Your task to perform on an android device: Check the news Image 0: 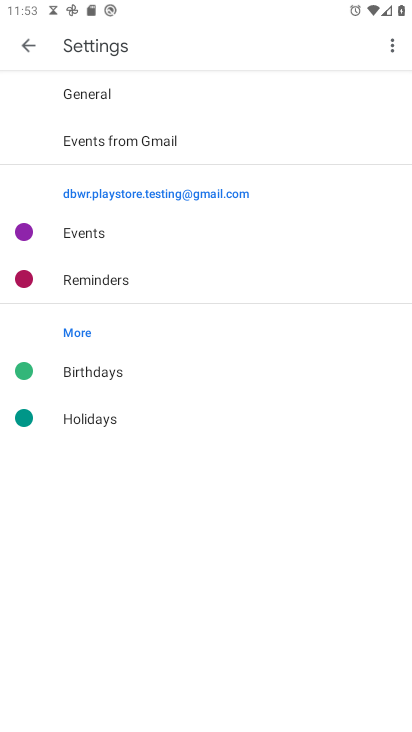
Step 0: press home button
Your task to perform on an android device: Check the news Image 1: 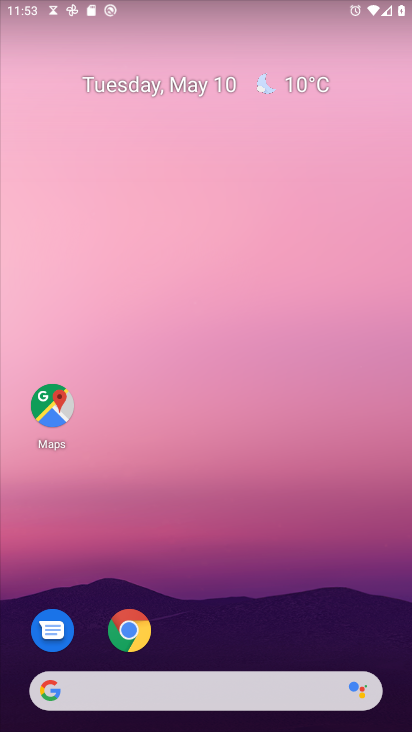
Step 1: click (125, 628)
Your task to perform on an android device: Check the news Image 2: 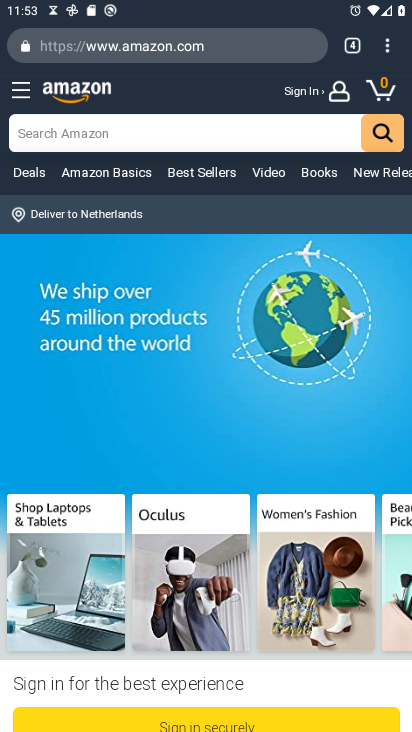
Step 2: click (356, 44)
Your task to perform on an android device: Check the news Image 3: 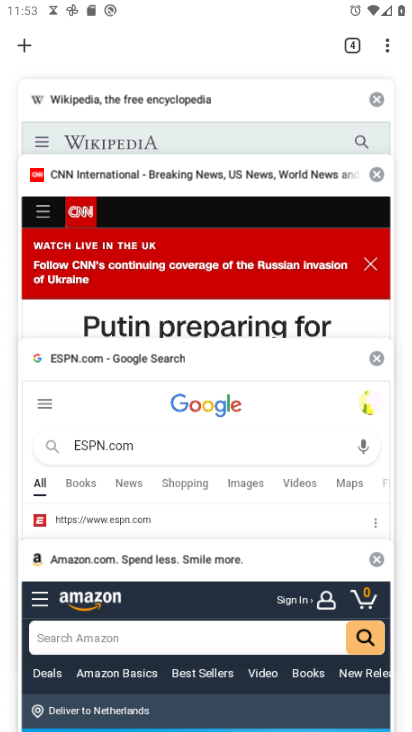
Step 3: click (25, 44)
Your task to perform on an android device: Check the news Image 4: 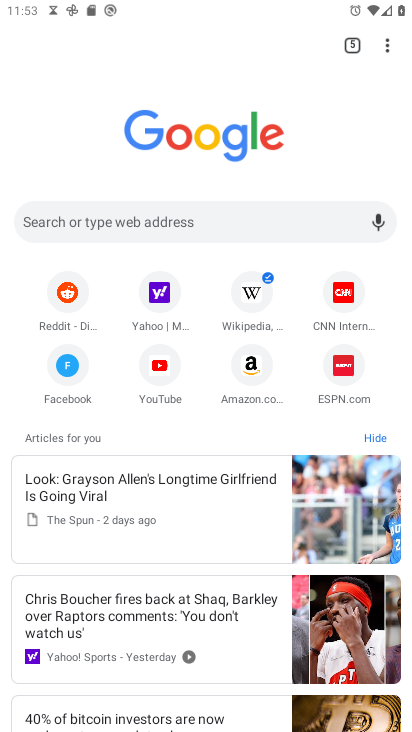
Step 4: click (189, 224)
Your task to perform on an android device: Check the news Image 5: 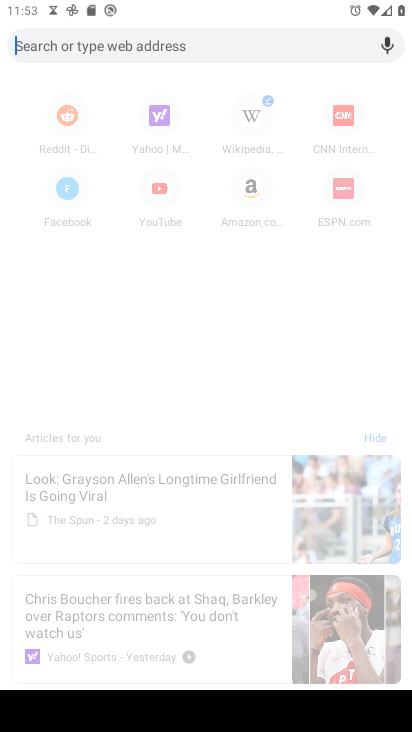
Step 5: type "news"
Your task to perform on an android device: Check the news Image 6: 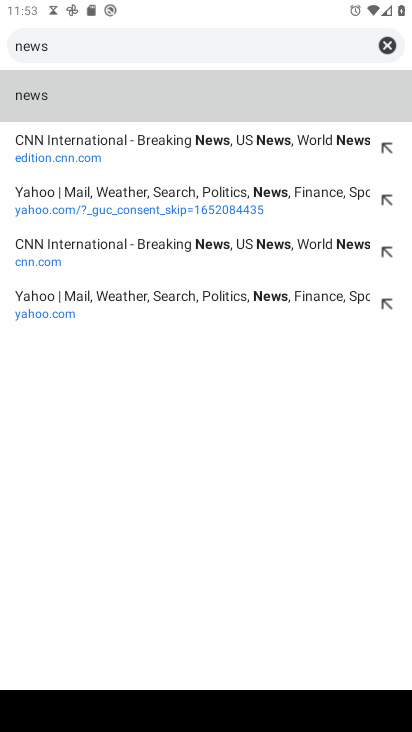
Step 6: click (95, 99)
Your task to perform on an android device: Check the news Image 7: 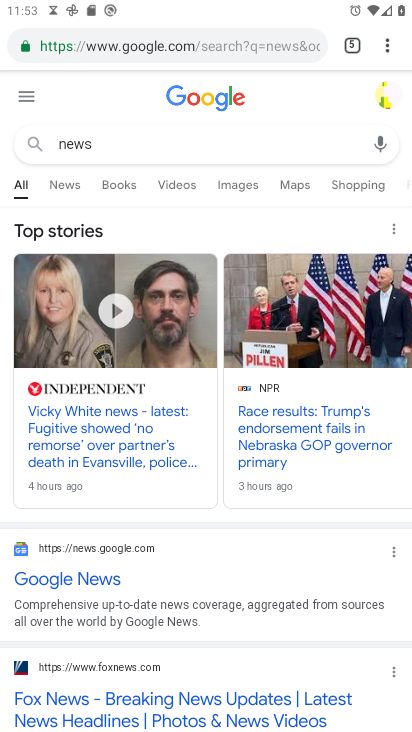
Step 7: click (70, 184)
Your task to perform on an android device: Check the news Image 8: 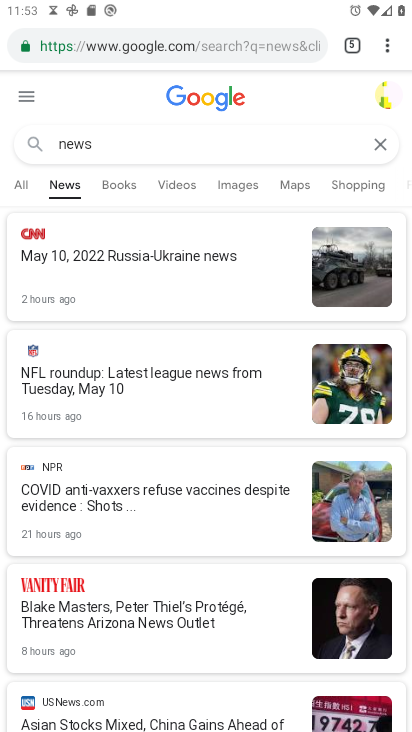
Step 8: task complete